Your task to perform on an android device: open app "Airtel Thanks" (install if not already installed) Image 0: 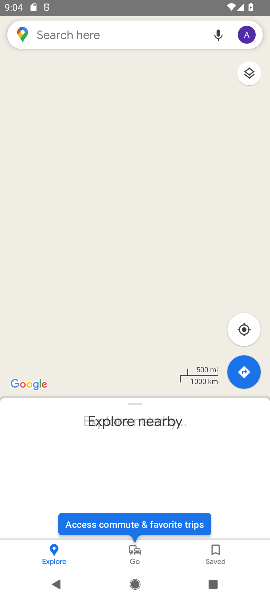
Step 0: press back button
Your task to perform on an android device: open app "Airtel Thanks" (install if not already installed) Image 1: 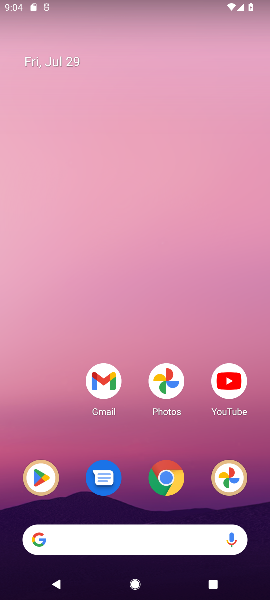
Step 1: click (38, 478)
Your task to perform on an android device: open app "Airtel Thanks" (install if not already installed) Image 2: 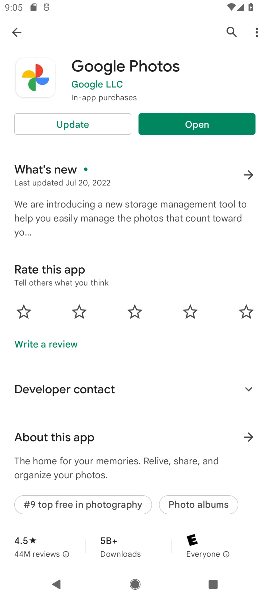
Step 2: click (233, 26)
Your task to perform on an android device: open app "Airtel Thanks" (install if not already installed) Image 3: 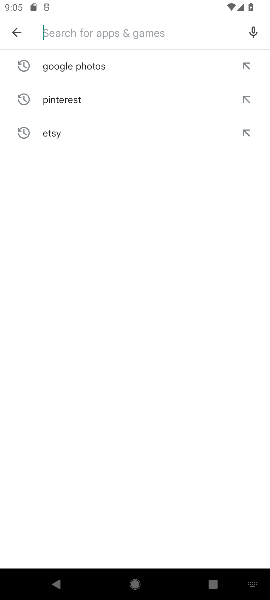
Step 3: click (104, 35)
Your task to perform on an android device: open app "Airtel Thanks" (install if not already installed) Image 4: 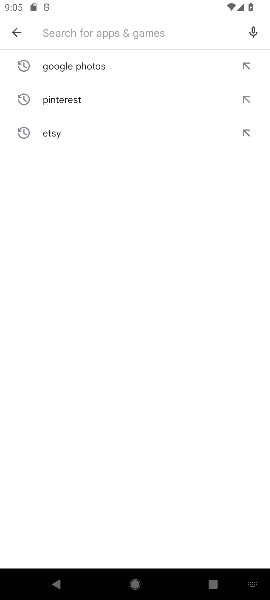
Step 4: type "airtel thanks"
Your task to perform on an android device: open app "Airtel Thanks" (install if not already installed) Image 5: 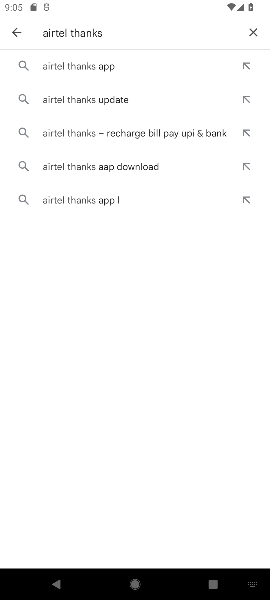
Step 5: click (122, 68)
Your task to perform on an android device: open app "Airtel Thanks" (install if not already installed) Image 6: 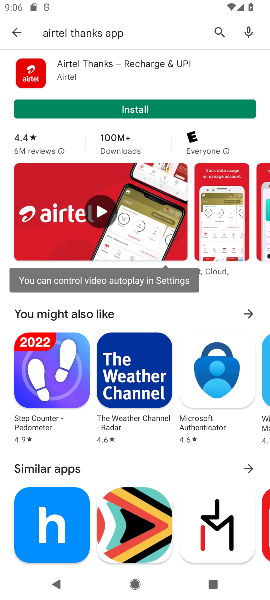
Step 6: click (116, 108)
Your task to perform on an android device: open app "Airtel Thanks" (install if not already installed) Image 7: 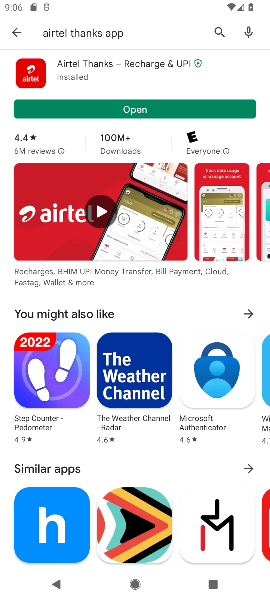
Step 7: click (131, 108)
Your task to perform on an android device: open app "Airtel Thanks" (install if not already installed) Image 8: 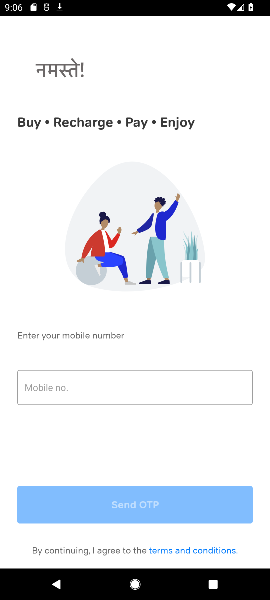
Step 8: task complete